Your task to perform on an android device: Clear the shopping cart on bestbuy. Search for razer blade on bestbuy, select the first entry, and add it to the cart. Image 0: 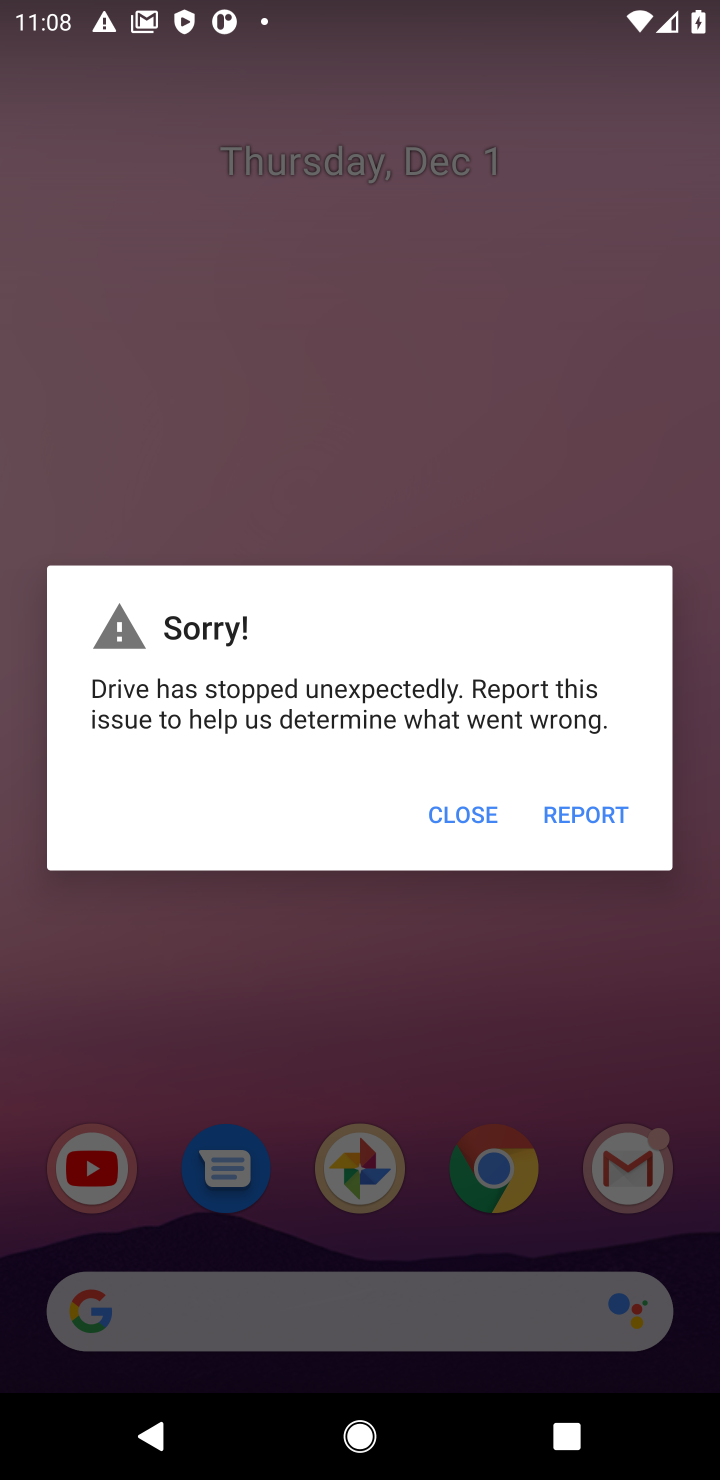
Step 0: press home button
Your task to perform on an android device: Clear the shopping cart on bestbuy. Search for razer blade on bestbuy, select the first entry, and add it to the cart. Image 1: 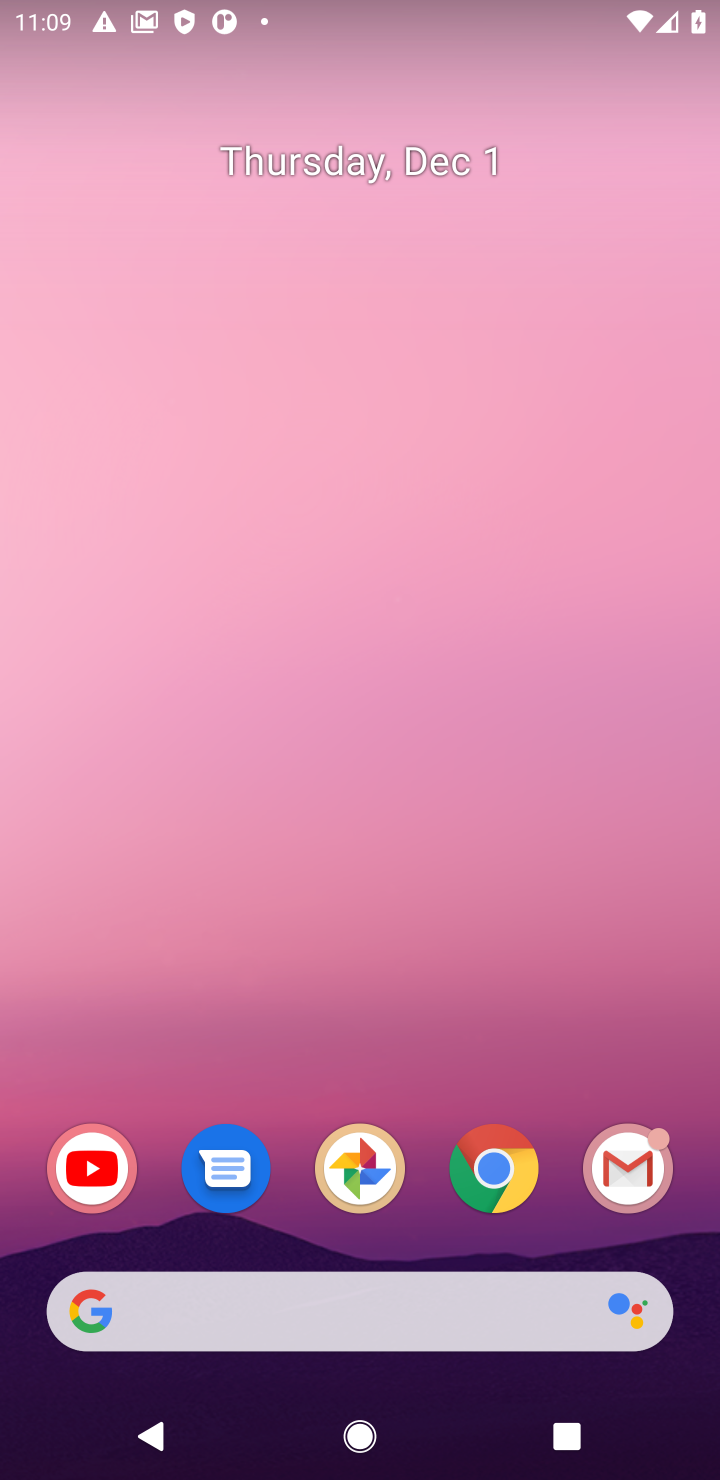
Step 1: click (503, 1148)
Your task to perform on an android device: Clear the shopping cart on bestbuy. Search for razer blade on bestbuy, select the first entry, and add it to the cart. Image 2: 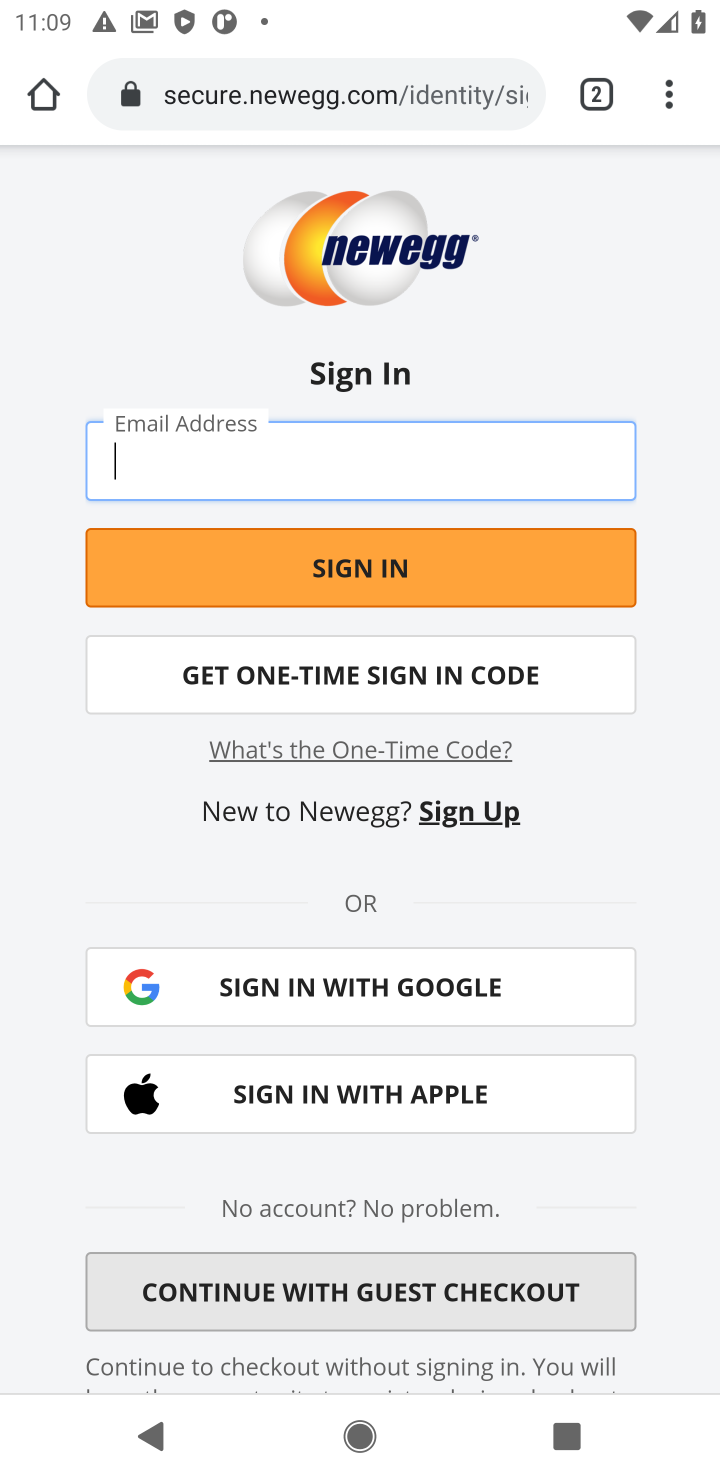
Step 2: click (342, 97)
Your task to perform on an android device: Clear the shopping cart on bestbuy. Search for razer blade on bestbuy, select the first entry, and add it to the cart. Image 3: 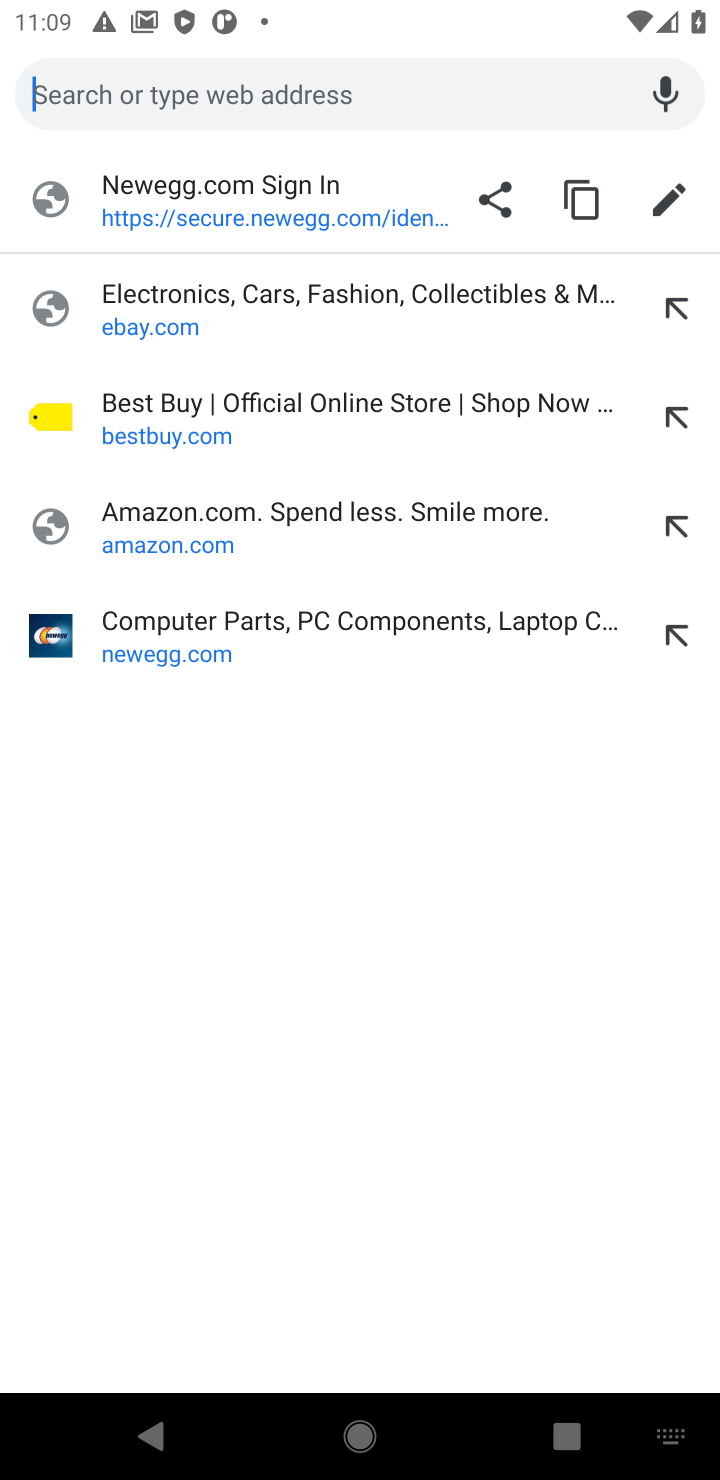
Step 3: click (126, 416)
Your task to perform on an android device: Clear the shopping cart on bestbuy. Search for razer blade on bestbuy, select the first entry, and add it to the cart. Image 4: 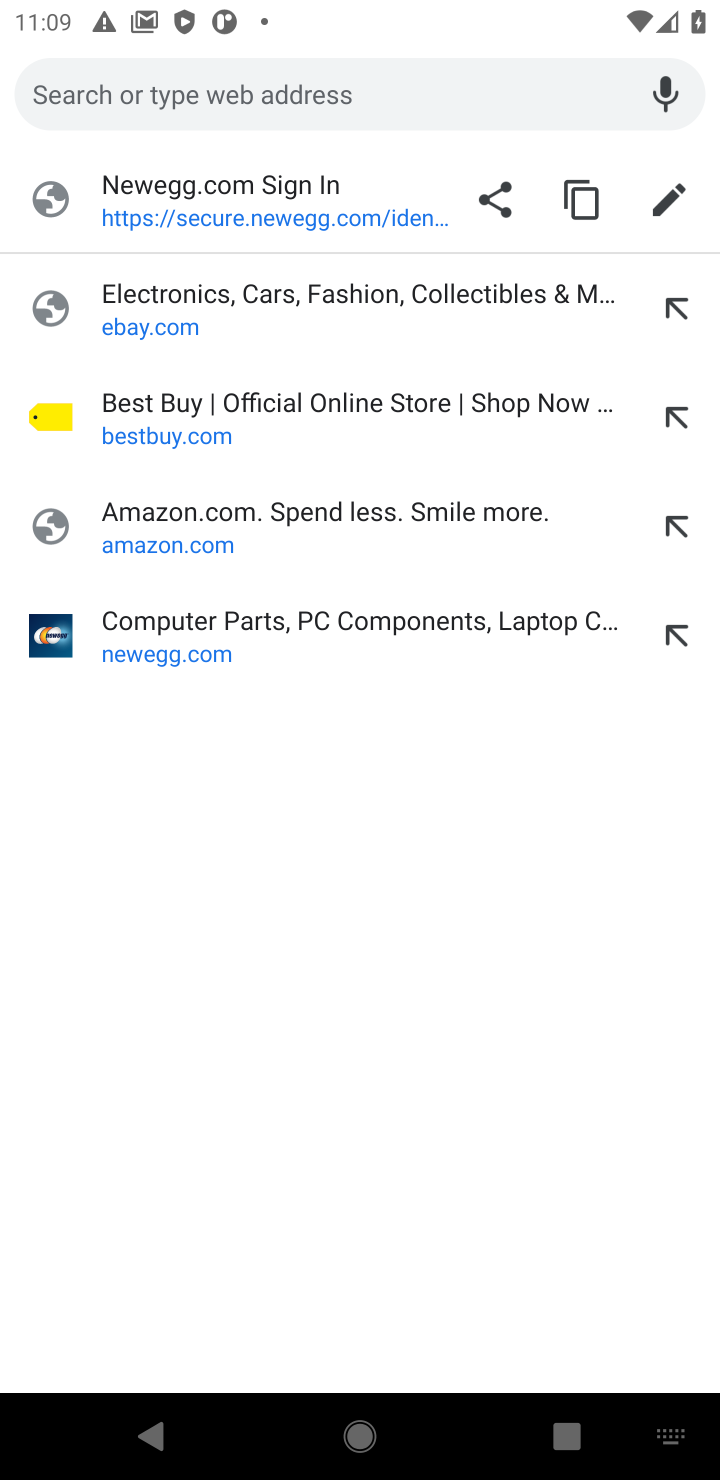
Step 4: click (143, 417)
Your task to perform on an android device: Clear the shopping cart on bestbuy. Search for razer blade on bestbuy, select the first entry, and add it to the cart. Image 5: 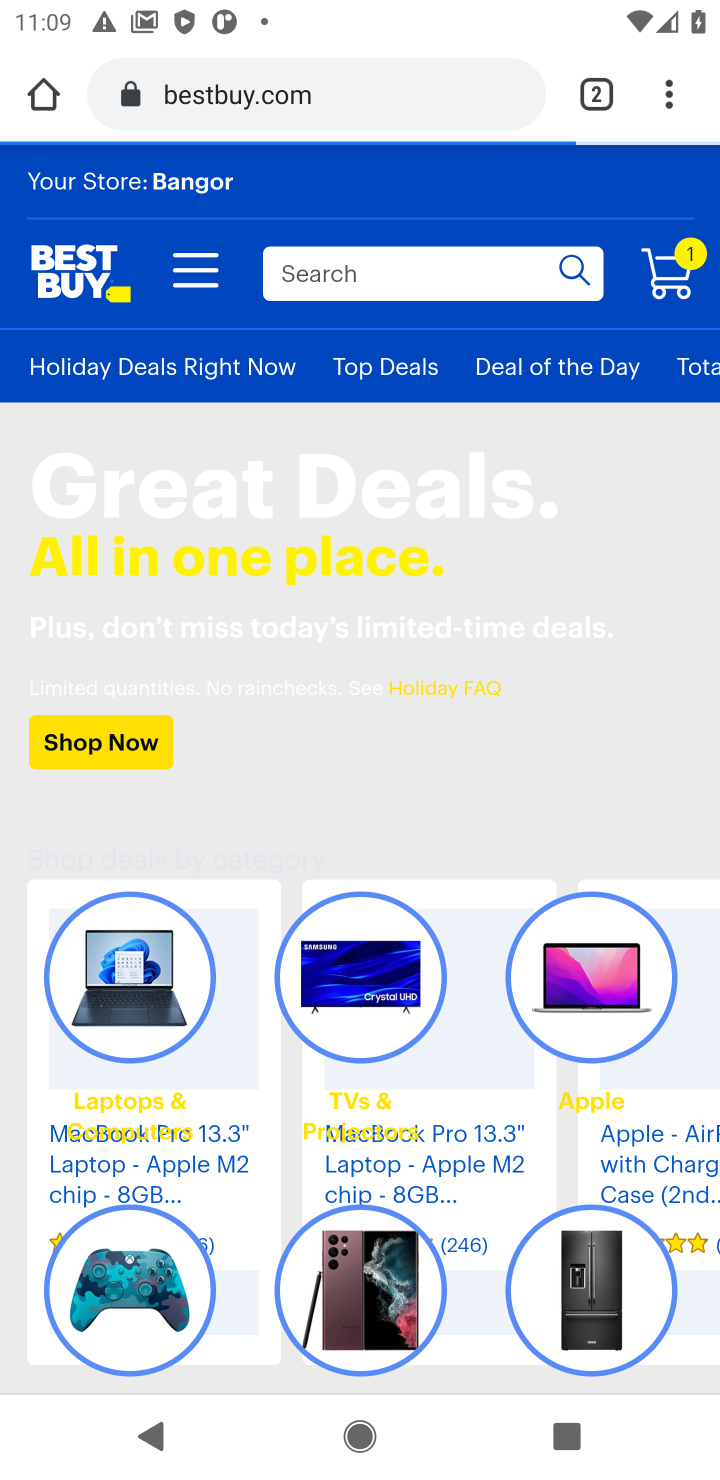
Step 5: click (661, 273)
Your task to perform on an android device: Clear the shopping cart on bestbuy. Search for razer blade on bestbuy, select the first entry, and add it to the cart. Image 6: 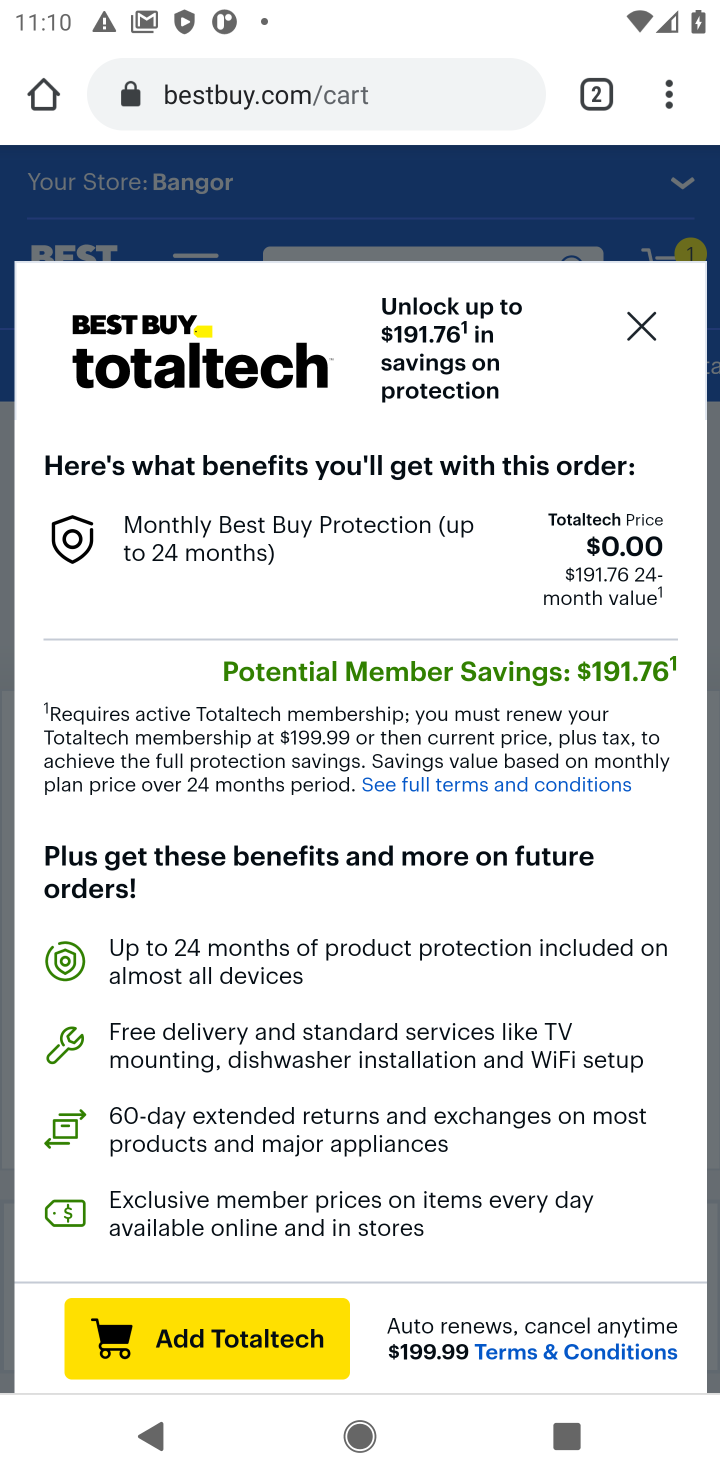
Step 6: click (639, 330)
Your task to perform on an android device: Clear the shopping cart on bestbuy. Search for razer blade on bestbuy, select the first entry, and add it to the cart. Image 7: 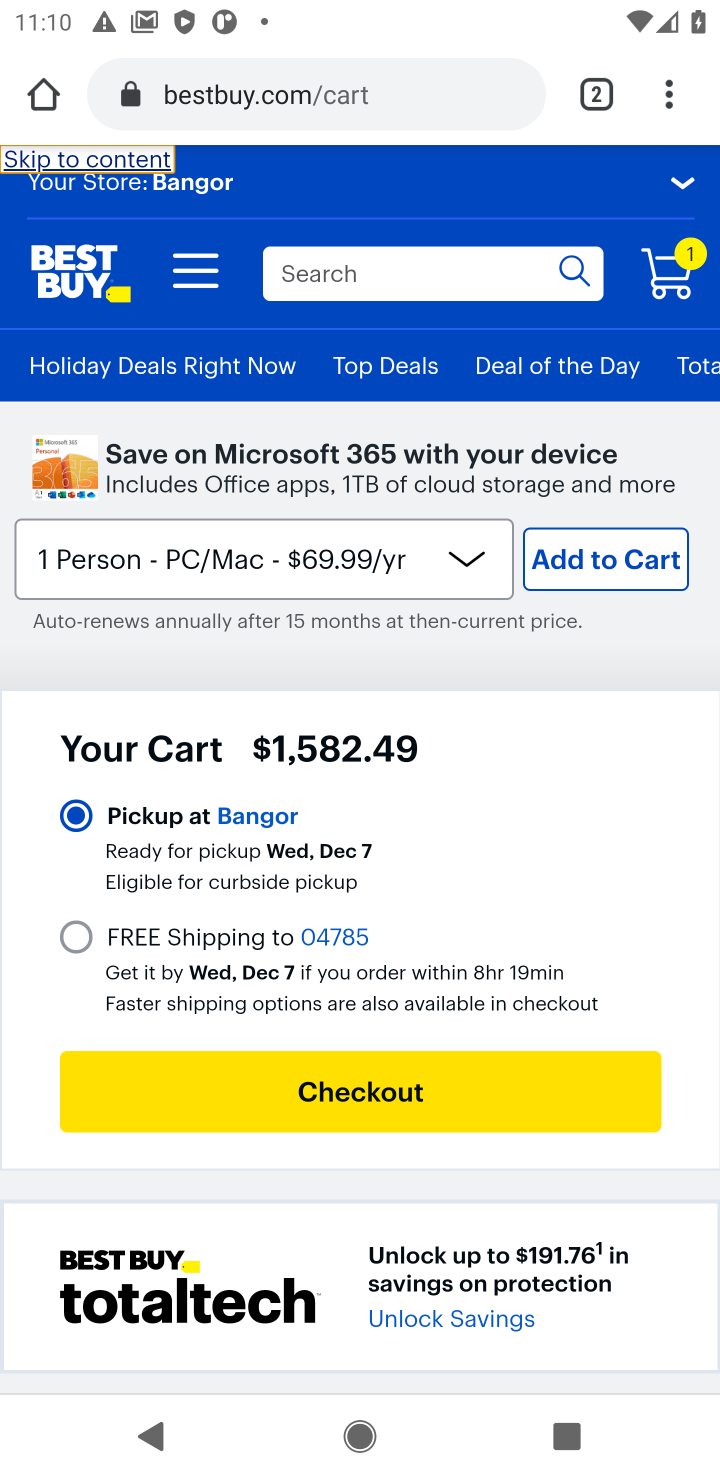
Step 7: drag from (404, 762) to (384, 401)
Your task to perform on an android device: Clear the shopping cart on bestbuy. Search for razer blade on bestbuy, select the first entry, and add it to the cart. Image 8: 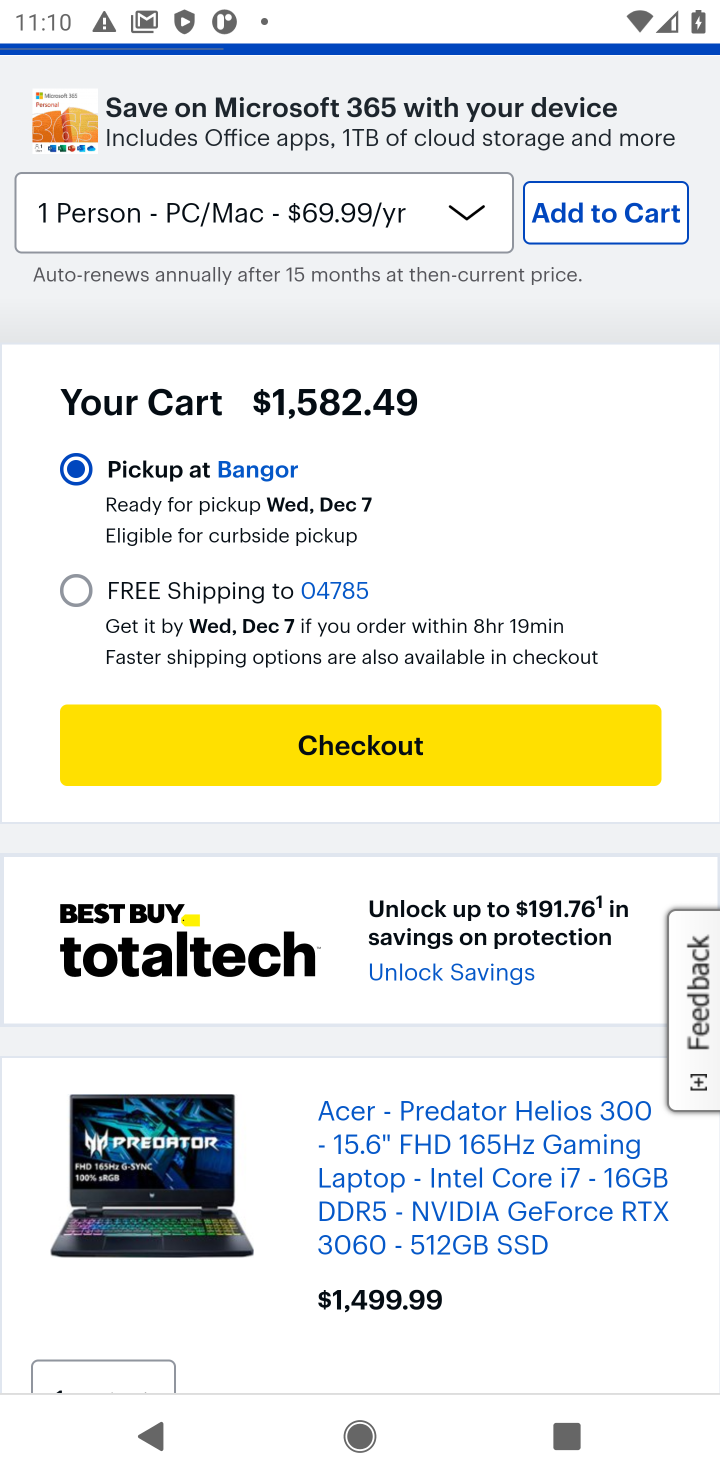
Step 8: drag from (334, 890) to (290, 351)
Your task to perform on an android device: Clear the shopping cart on bestbuy. Search for razer blade on bestbuy, select the first entry, and add it to the cart. Image 9: 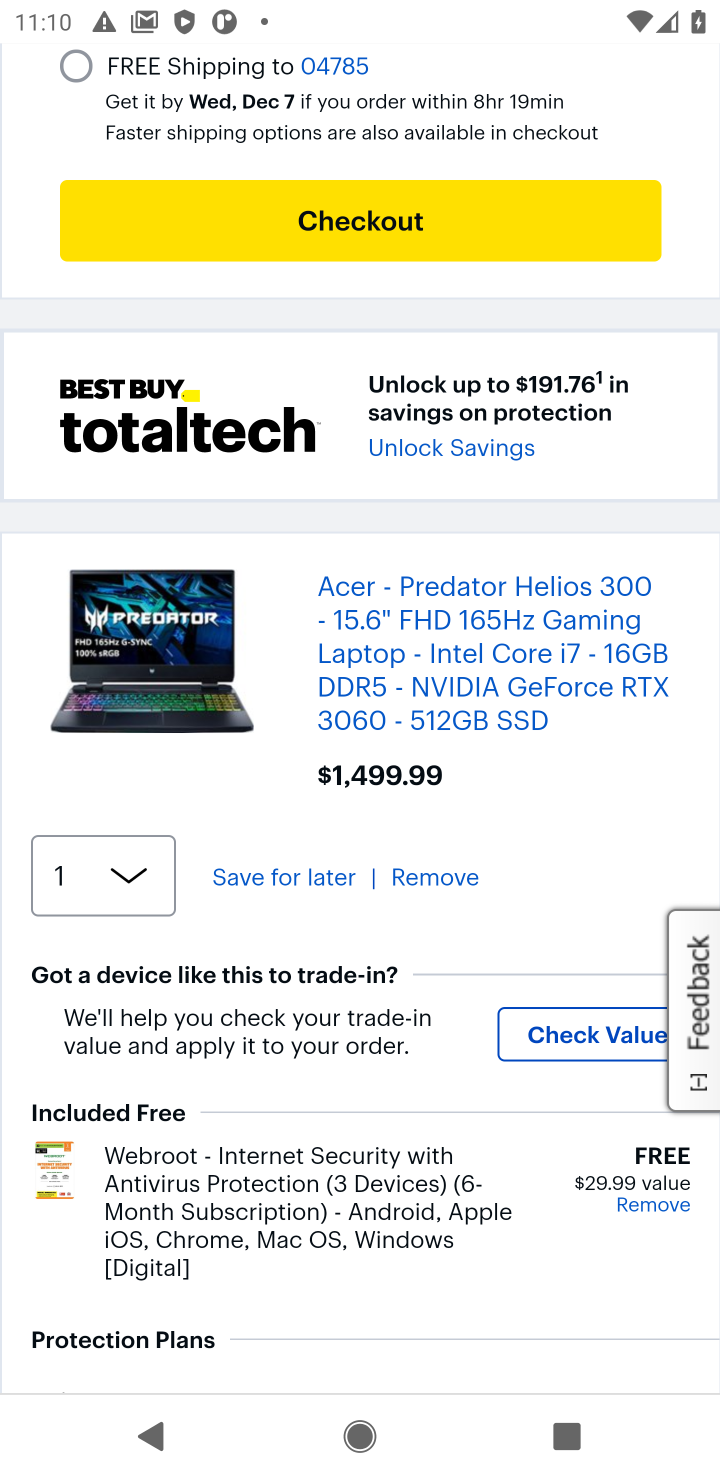
Step 9: click (417, 877)
Your task to perform on an android device: Clear the shopping cart on bestbuy. Search for razer blade on bestbuy, select the first entry, and add it to the cart. Image 10: 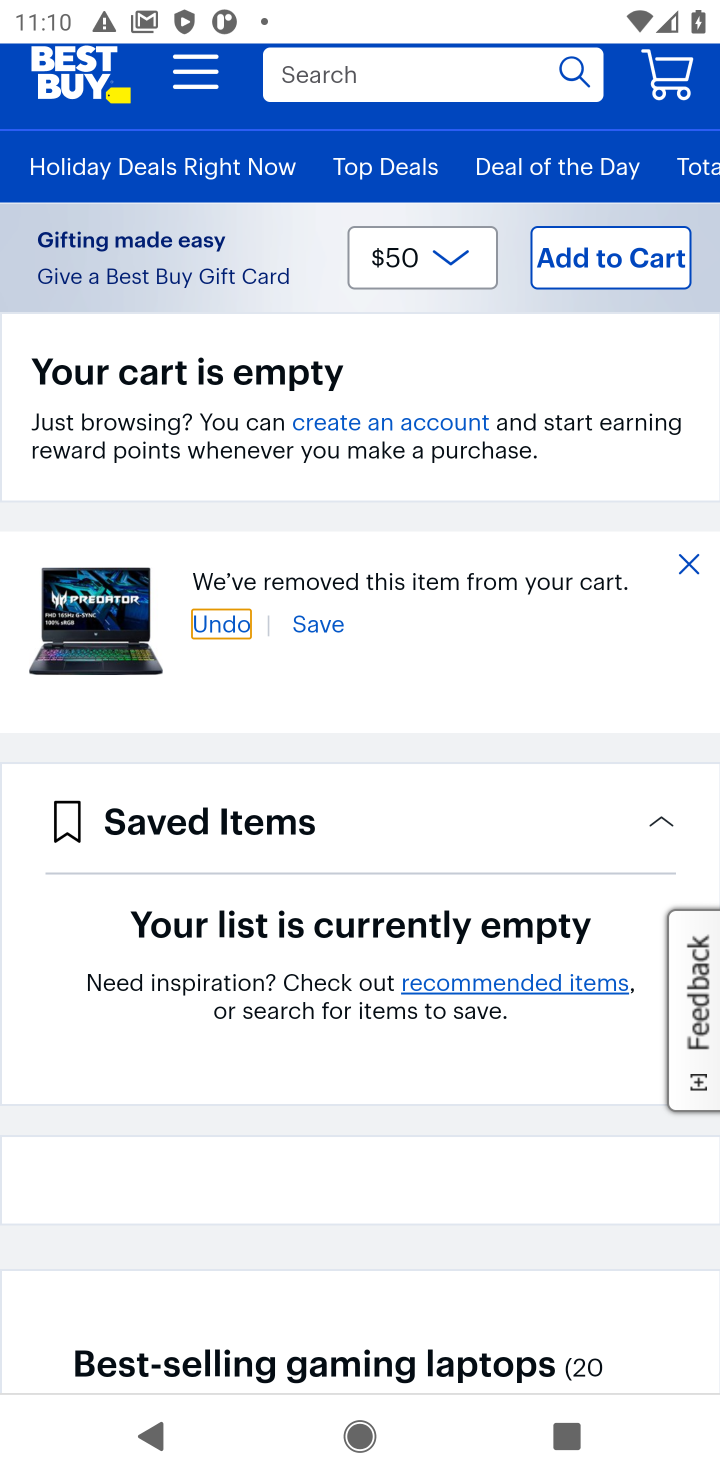
Step 10: click (332, 82)
Your task to perform on an android device: Clear the shopping cart on bestbuy. Search for razer blade on bestbuy, select the first entry, and add it to the cart. Image 11: 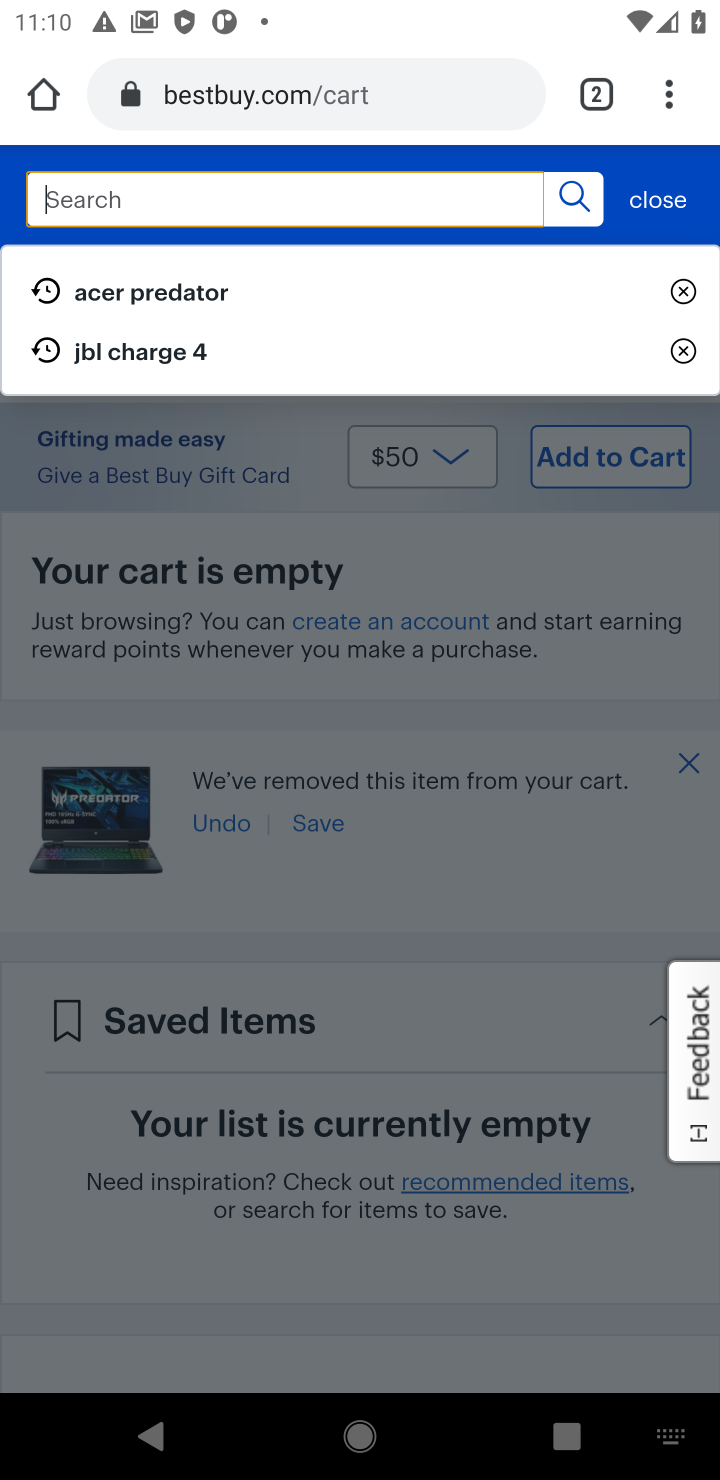
Step 11: type "razer blade"
Your task to perform on an android device: Clear the shopping cart on bestbuy. Search for razer blade on bestbuy, select the first entry, and add it to the cart. Image 12: 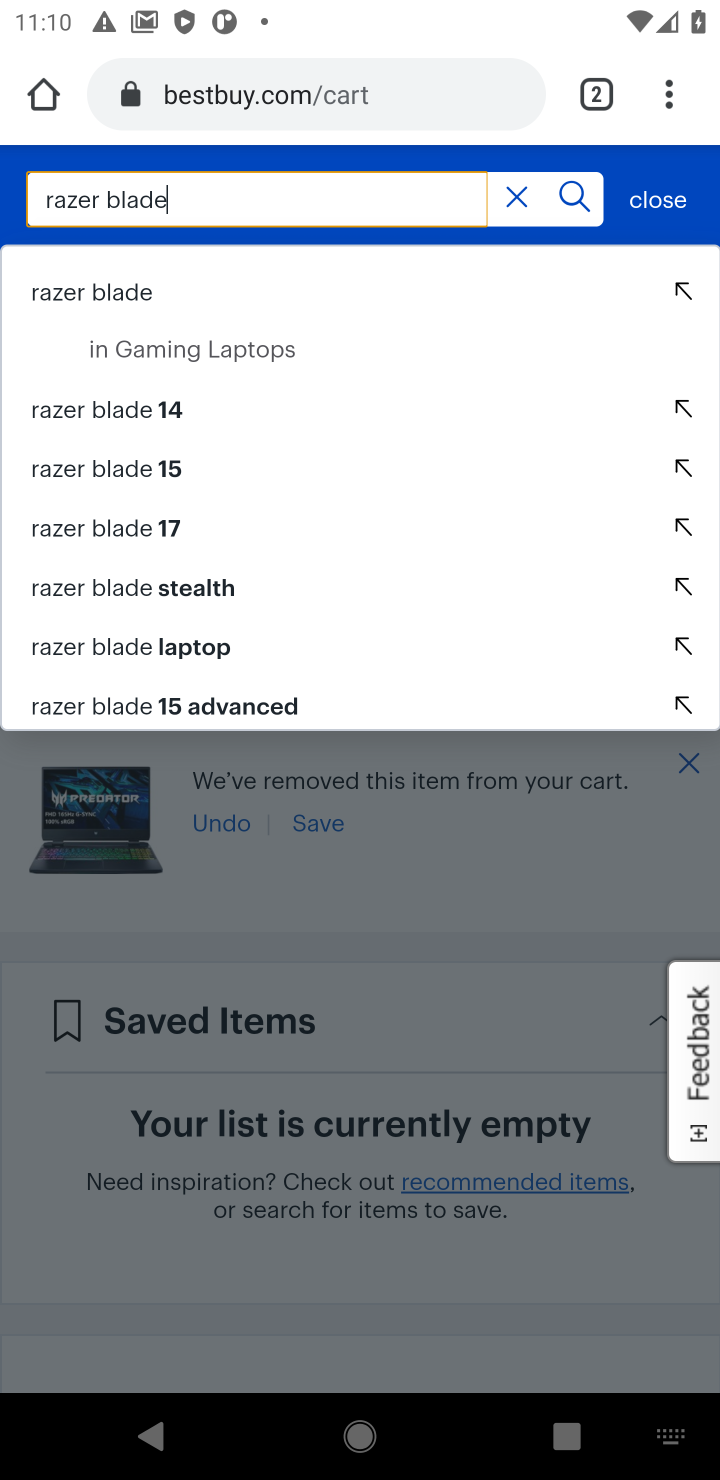
Step 12: click (91, 309)
Your task to perform on an android device: Clear the shopping cart on bestbuy. Search for razer blade on bestbuy, select the first entry, and add it to the cart. Image 13: 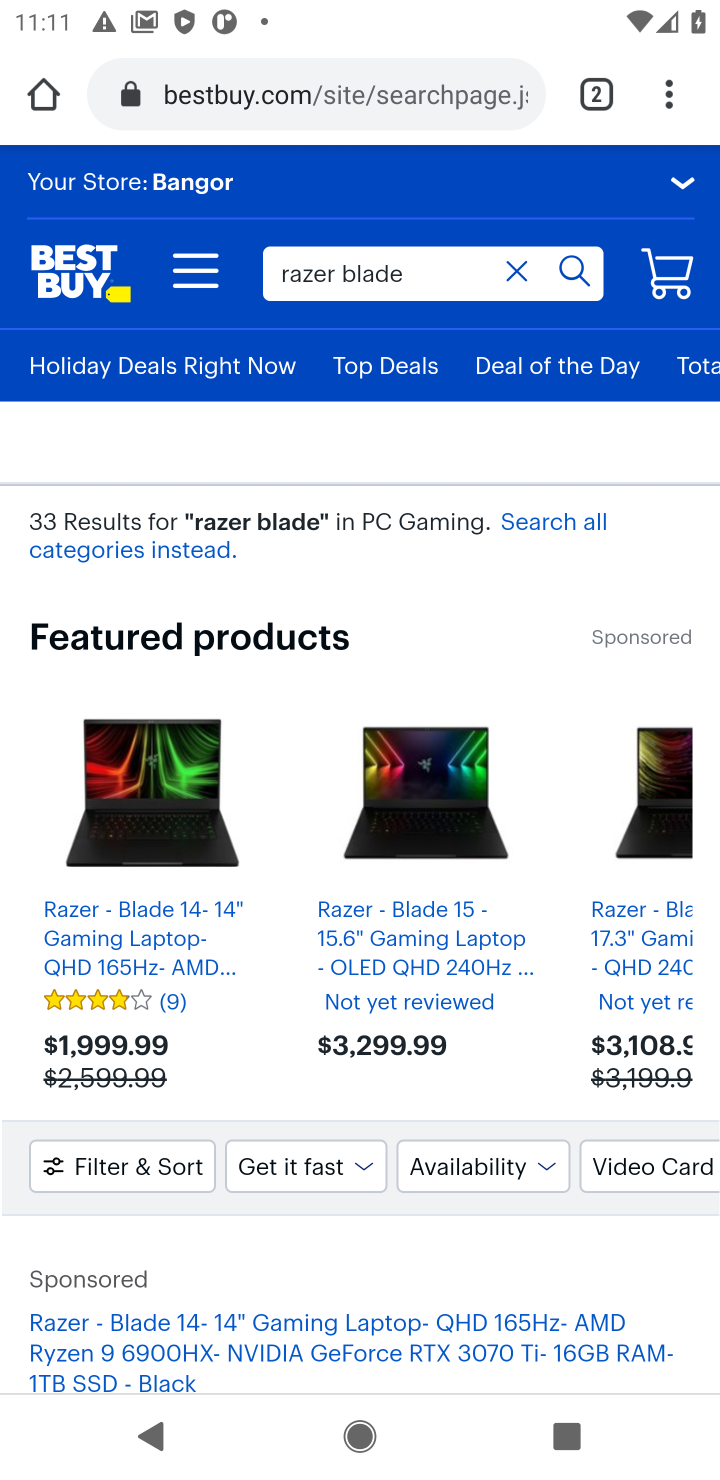
Step 13: drag from (320, 843) to (294, 427)
Your task to perform on an android device: Clear the shopping cart on bestbuy. Search for razer blade on bestbuy, select the first entry, and add it to the cart. Image 14: 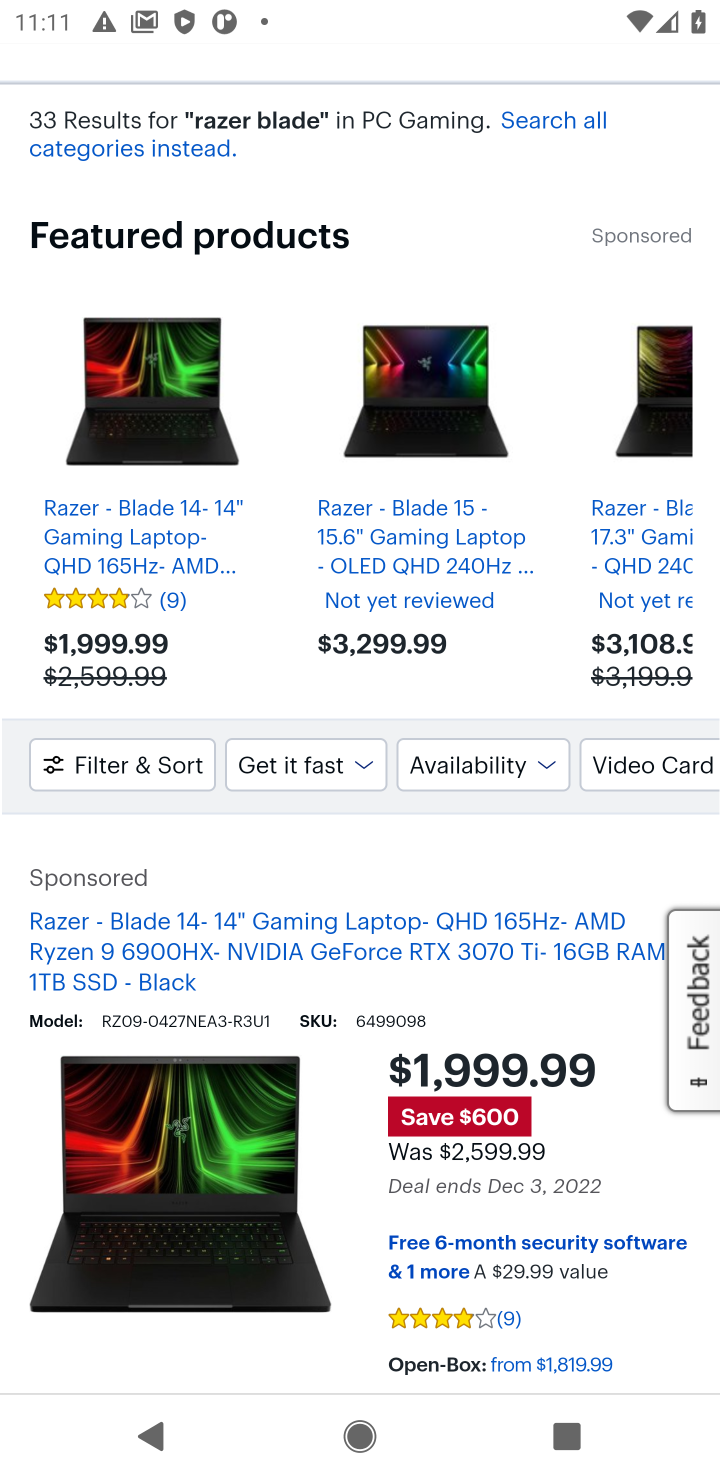
Step 14: drag from (330, 999) to (313, 498)
Your task to perform on an android device: Clear the shopping cart on bestbuy. Search for razer blade on bestbuy, select the first entry, and add it to the cart. Image 15: 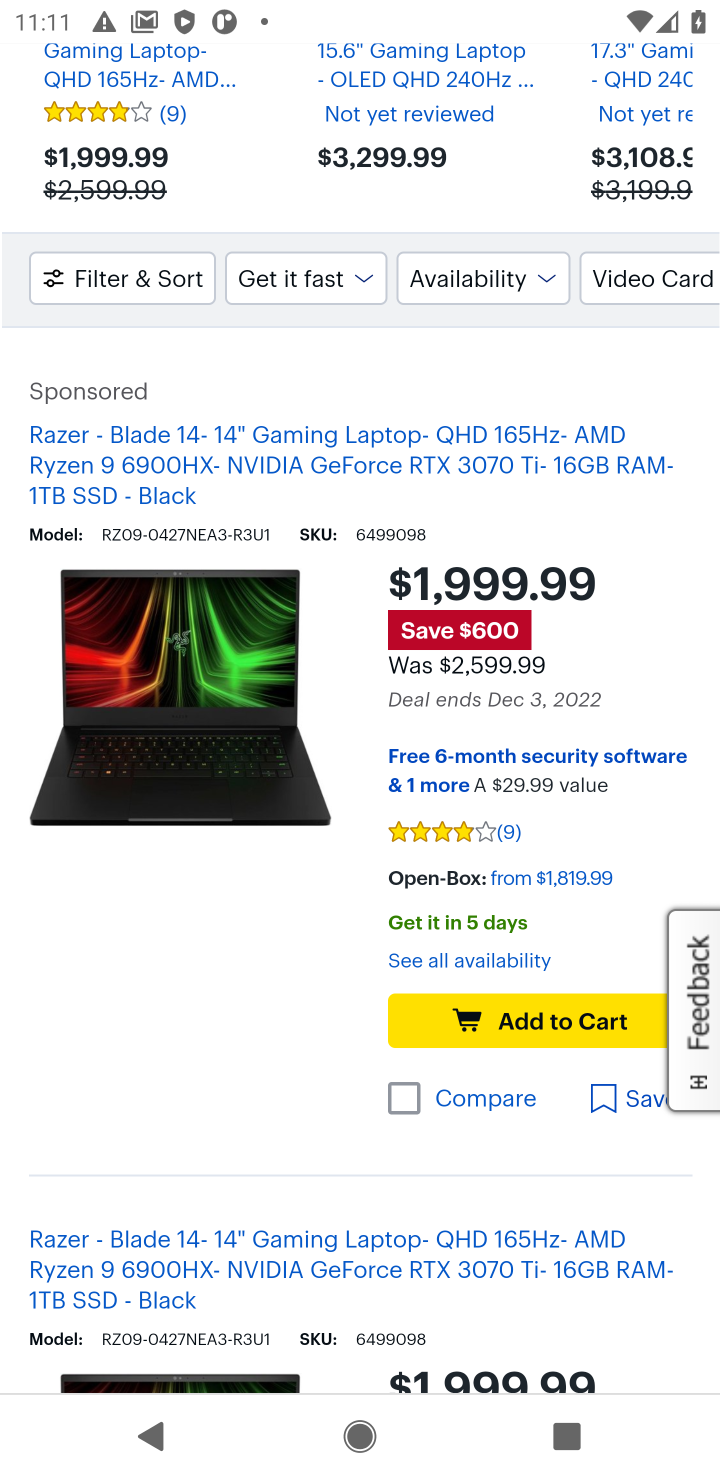
Step 15: click (462, 1024)
Your task to perform on an android device: Clear the shopping cart on bestbuy. Search for razer blade on bestbuy, select the first entry, and add it to the cart. Image 16: 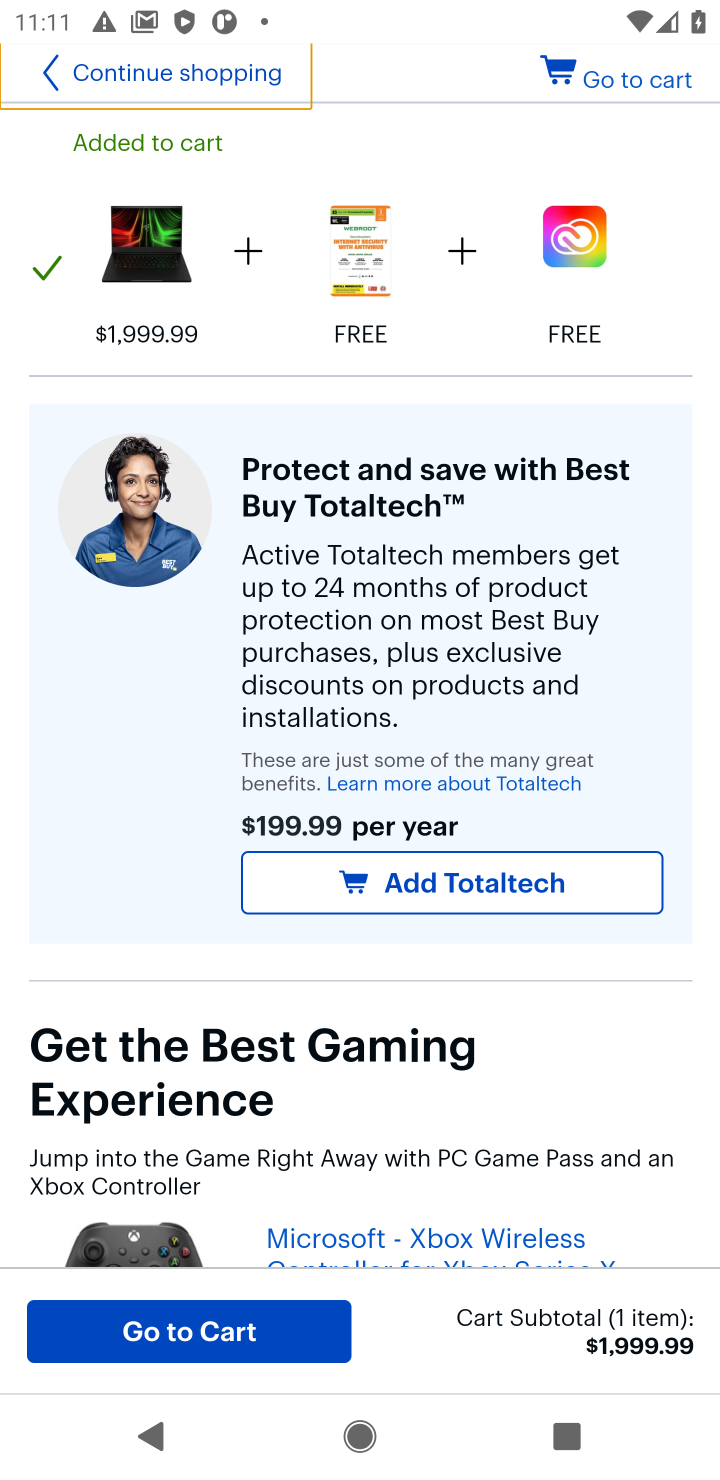
Step 16: task complete